Your task to perform on an android device: Go to notification settings Image 0: 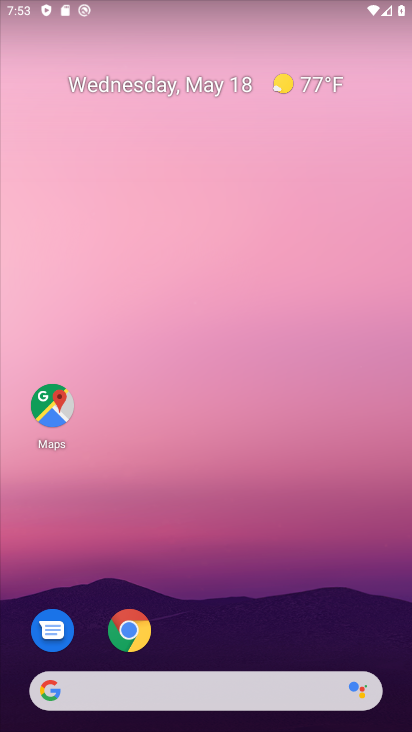
Step 0: drag from (271, 390) to (271, 230)
Your task to perform on an android device: Go to notification settings Image 1: 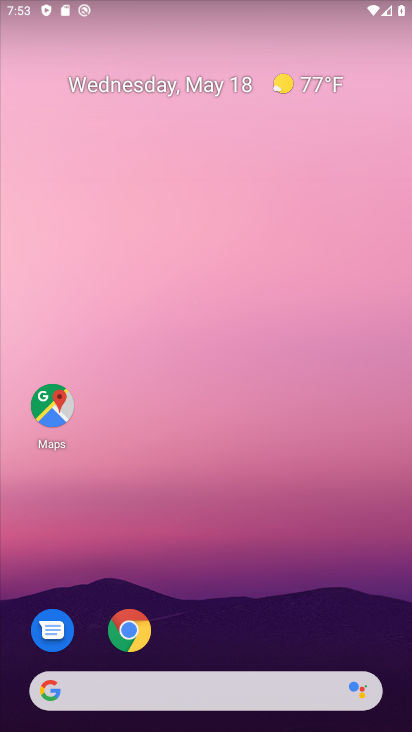
Step 1: drag from (338, 641) to (311, 99)
Your task to perform on an android device: Go to notification settings Image 2: 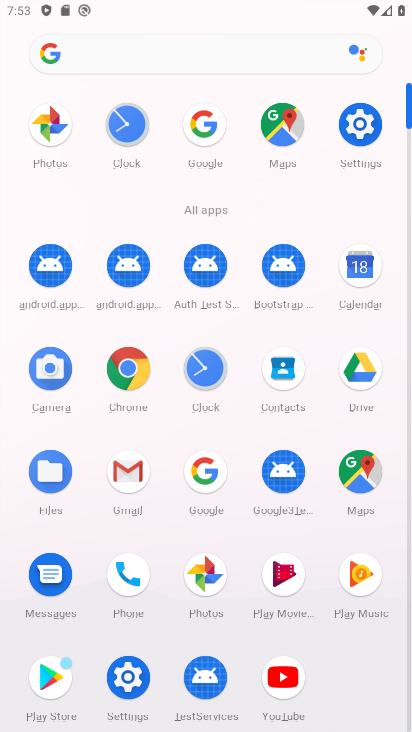
Step 2: click (351, 120)
Your task to perform on an android device: Go to notification settings Image 3: 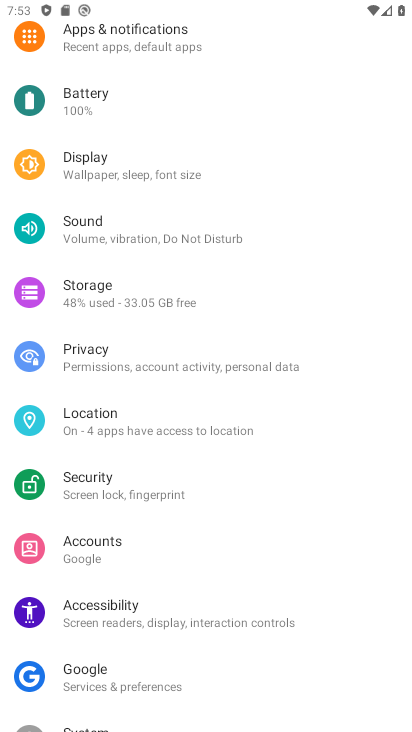
Step 3: drag from (292, 167) to (291, 552)
Your task to perform on an android device: Go to notification settings Image 4: 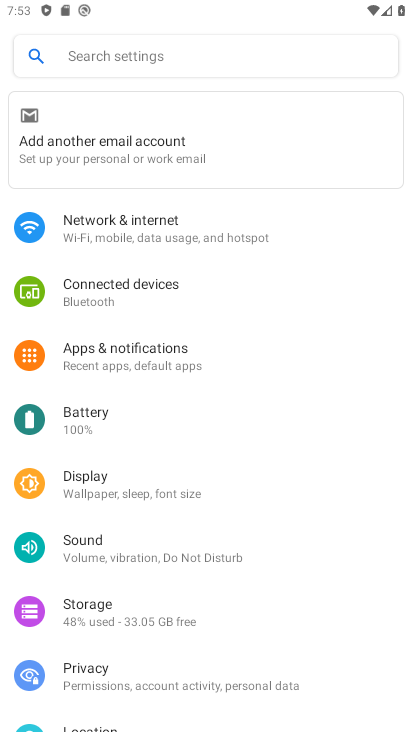
Step 4: click (228, 369)
Your task to perform on an android device: Go to notification settings Image 5: 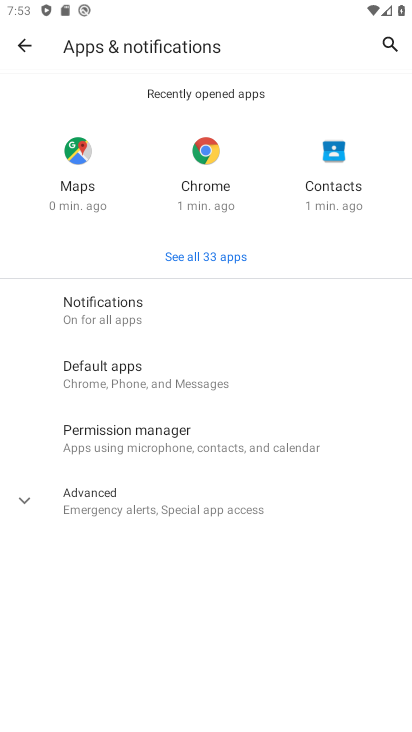
Step 5: click (213, 315)
Your task to perform on an android device: Go to notification settings Image 6: 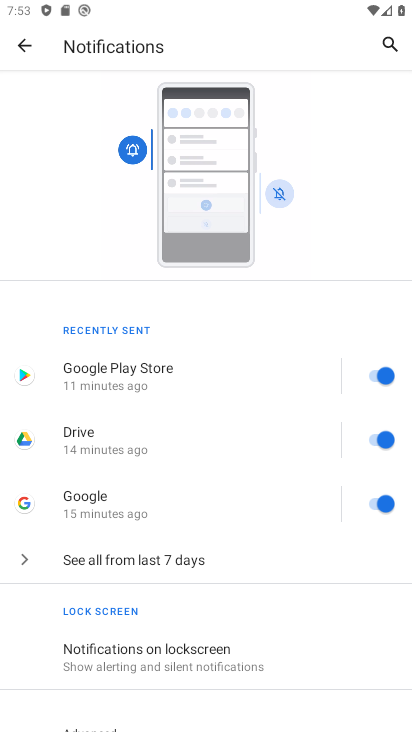
Step 6: task complete